Your task to perform on an android device: Do I have any events today? Image 0: 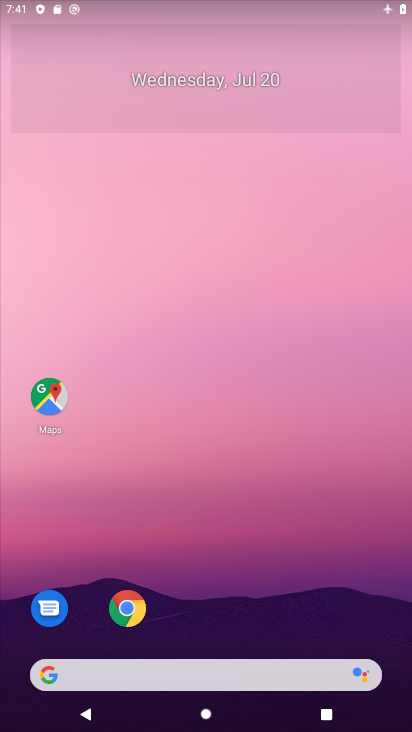
Step 0: drag from (339, 578) to (324, 61)
Your task to perform on an android device: Do I have any events today? Image 1: 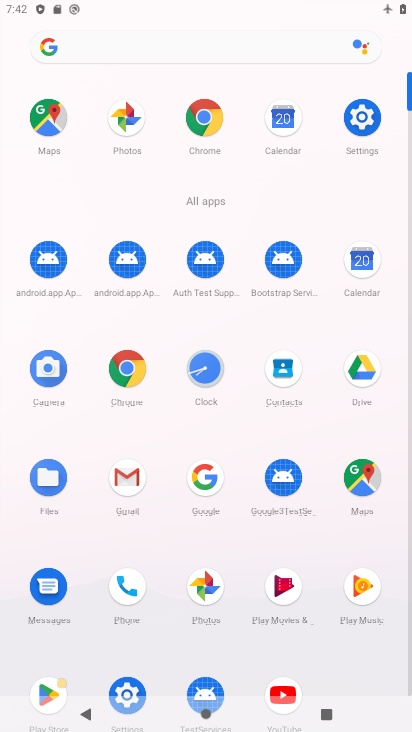
Step 1: click (381, 257)
Your task to perform on an android device: Do I have any events today? Image 2: 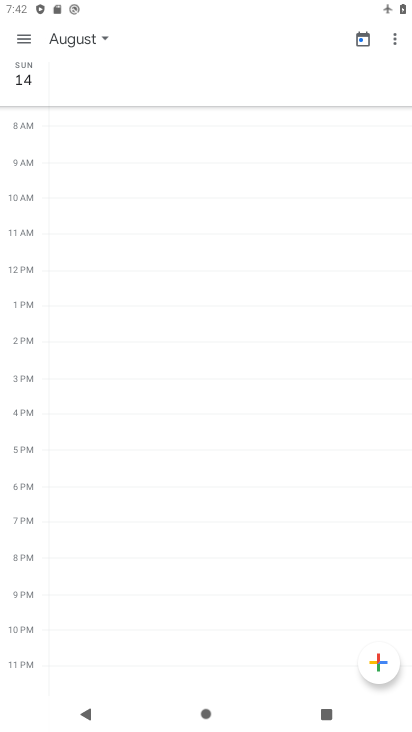
Step 2: click (78, 40)
Your task to perform on an android device: Do I have any events today? Image 3: 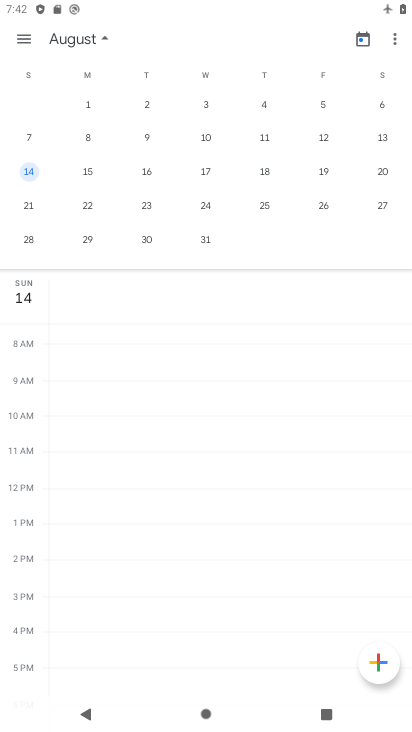
Step 3: drag from (24, 162) to (398, 164)
Your task to perform on an android device: Do I have any events today? Image 4: 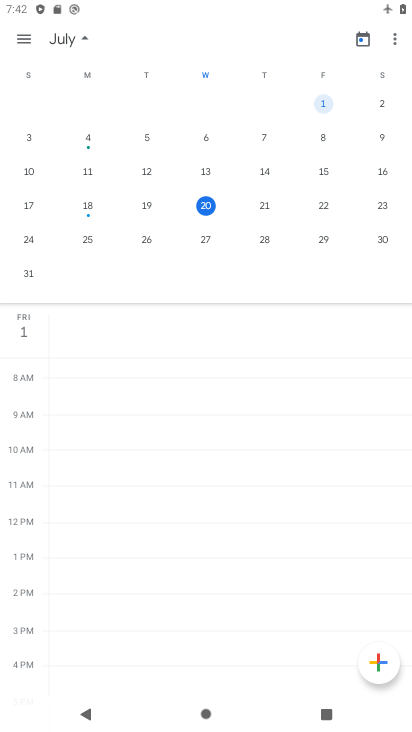
Step 4: click (206, 202)
Your task to perform on an android device: Do I have any events today? Image 5: 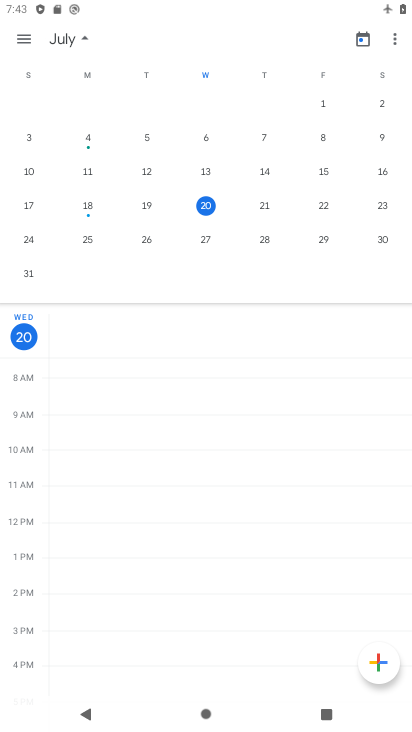
Step 5: task complete